Your task to perform on an android device: Is it going to rain this weekend? Image 0: 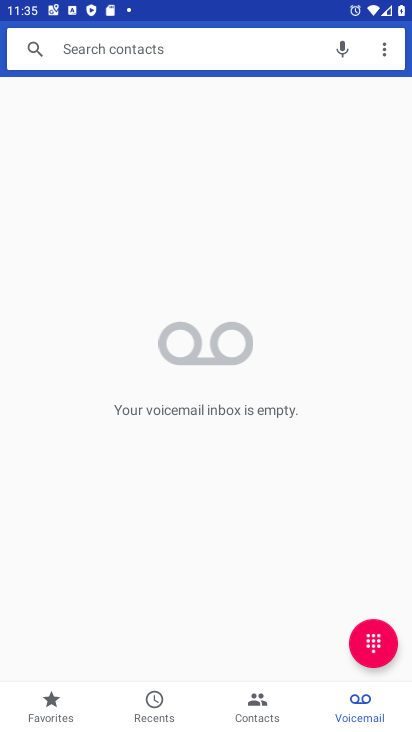
Step 0: press home button
Your task to perform on an android device: Is it going to rain this weekend? Image 1: 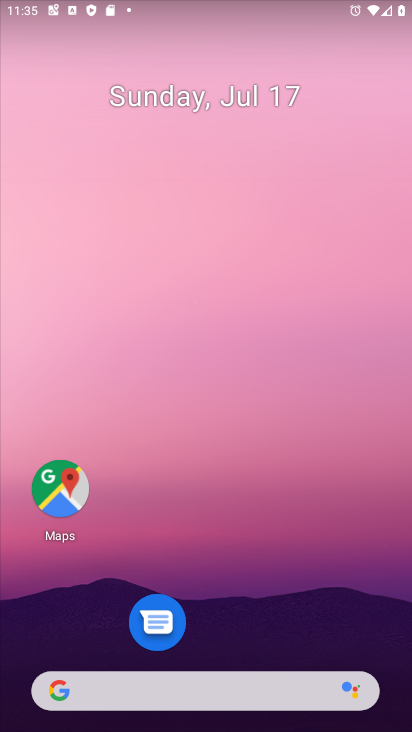
Step 1: click (246, 691)
Your task to perform on an android device: Is it going to rain this weekend? Image 2: 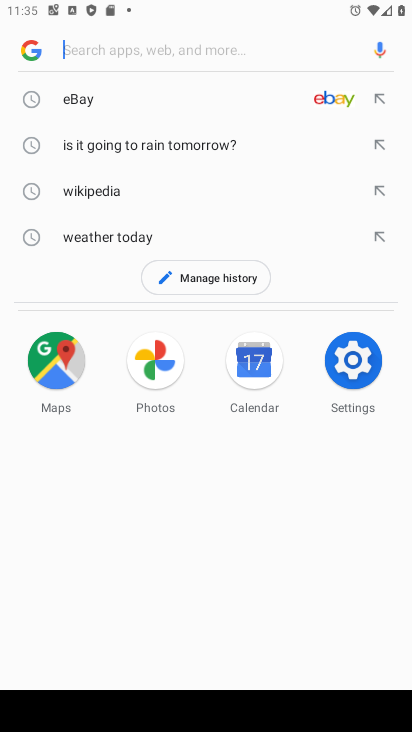
Step 2: type "Is it going to rain this weekend?"
Your task to perform on an android device: Is it going to rain this weekend? Image 3: 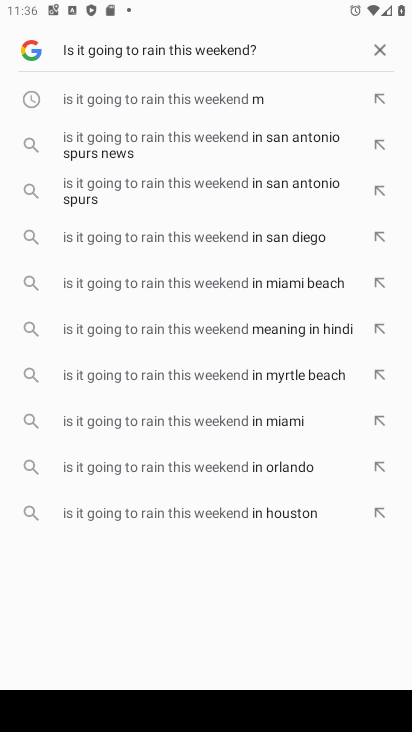
Step 3: press enter
Your task to perform on an android device: Is it going to rain this weekend? Image 4: 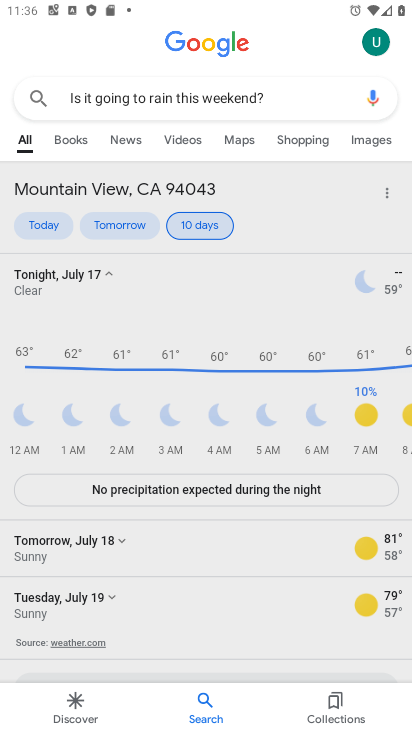
Step 4: task complete